Your task to perform on an android device: see creations saved in the google photos Image 0: 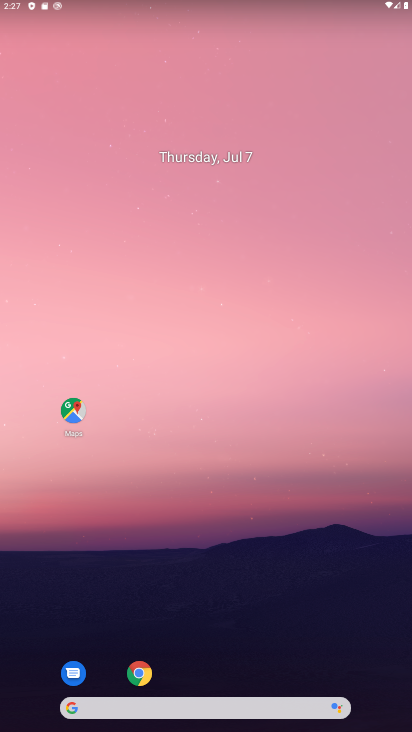
Step 0: drag from (230, 678) to (257, 66)
Your task to perform on an android device: see creations saved in the google photos Image 1: 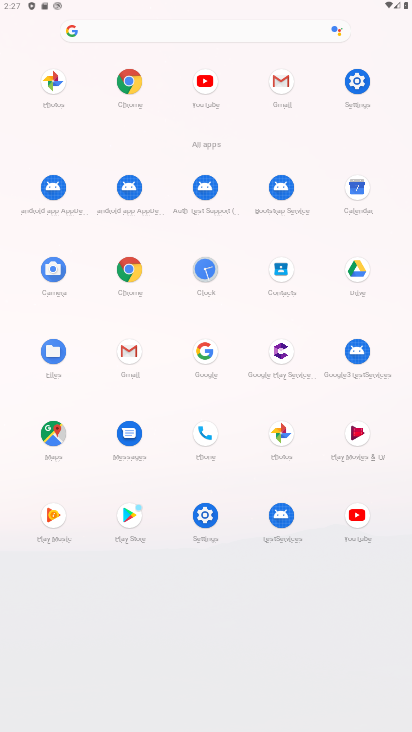
Step 1: click (282, 409)
Your task to perform on an android device: see creations saved in the google photos Image 2: 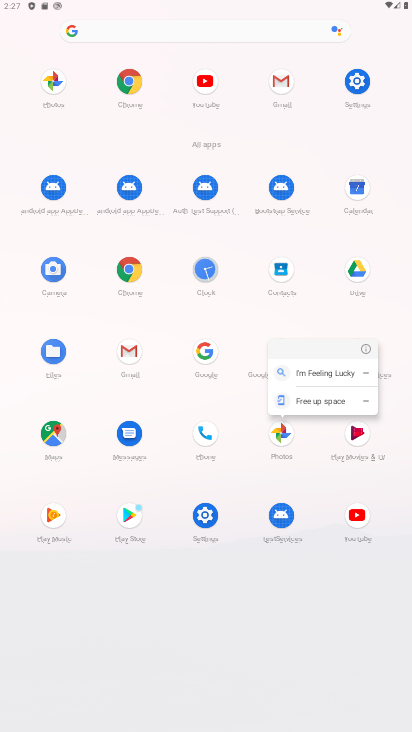
Step 2: click (271, 435)
Your task to perform on an android device: see creations saved in the google photos Image 3: 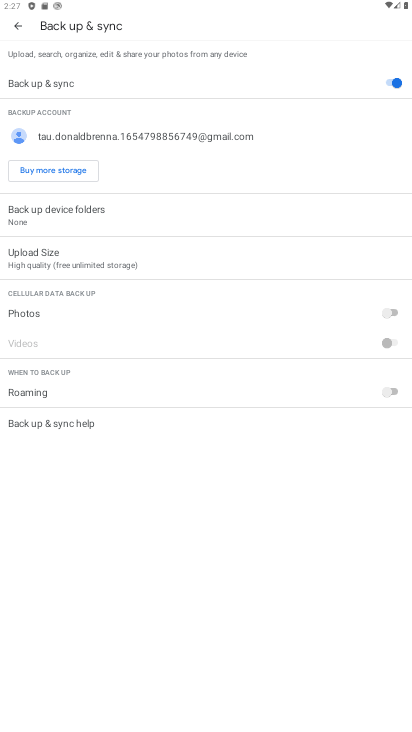
Step 3: click (4, 22)
Your task to perform on an android device: see creations saved in the google photos Image 4: 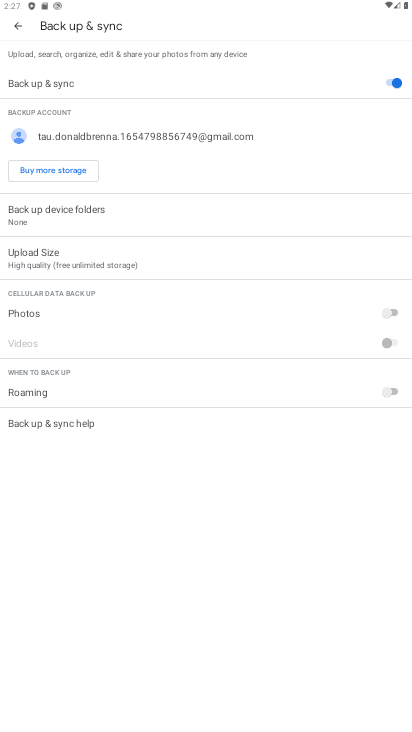
Step 4: click (12, 27)
Your task to perform on an android device: see creations saved in the google photos Image 5: 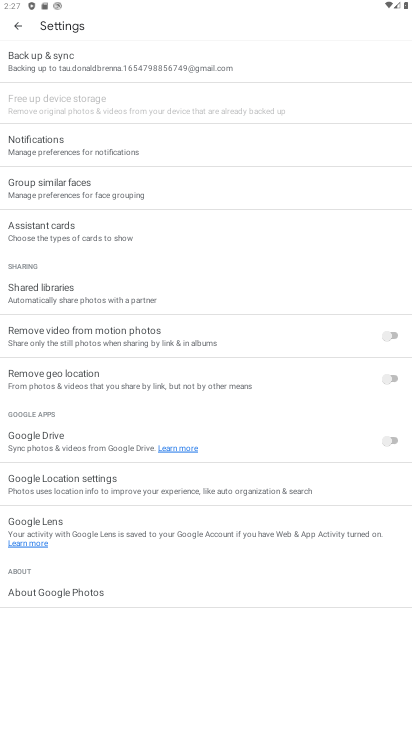
Step 5: click (13, 27)
Your task to perform on an android device: see creations saved in the google photos Image 6: 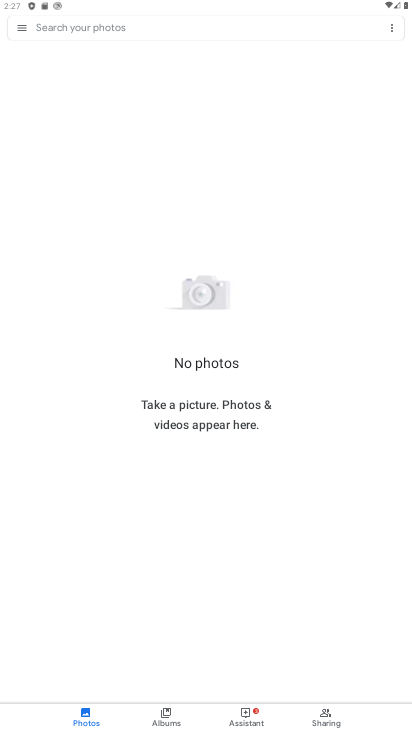
Step 6: click (101, 29)
Your task to perform on an android device: see creations saved in the google photos Image 7: 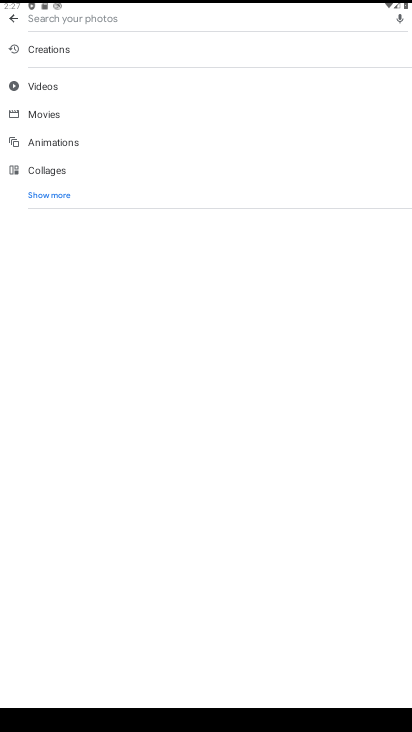
Step 7: click (54, 185)
Your task to perform on an android device: see creations saved in the google photos Image 8: 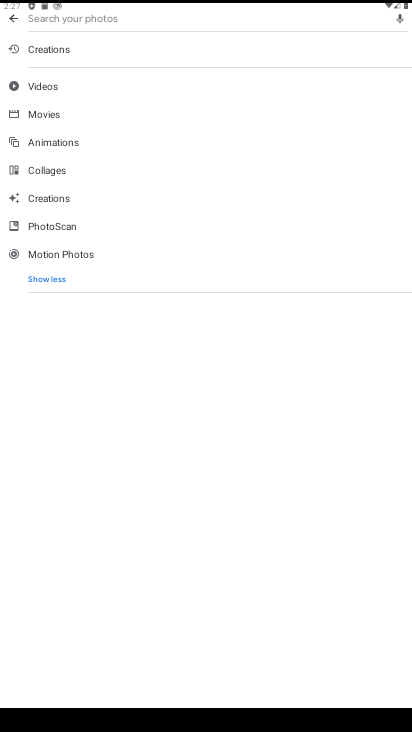
Step 8: click (62, 189)
Your task to perform on an android device: see creations saved in the google photos Image 9: 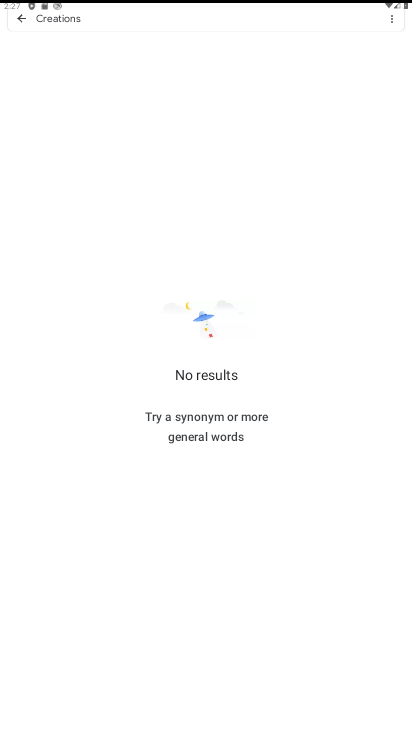
Step 9: task complete